Your task to perform on an android device: Open location settings Image 0: 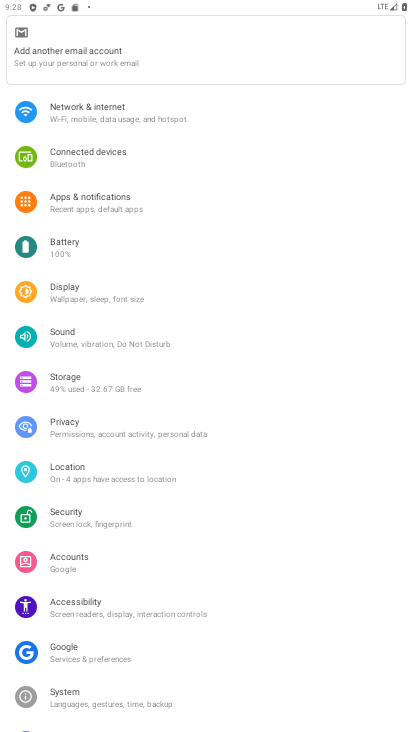
Step 0: press home button
Your task to perform on an android device: Open location settings Image 1: 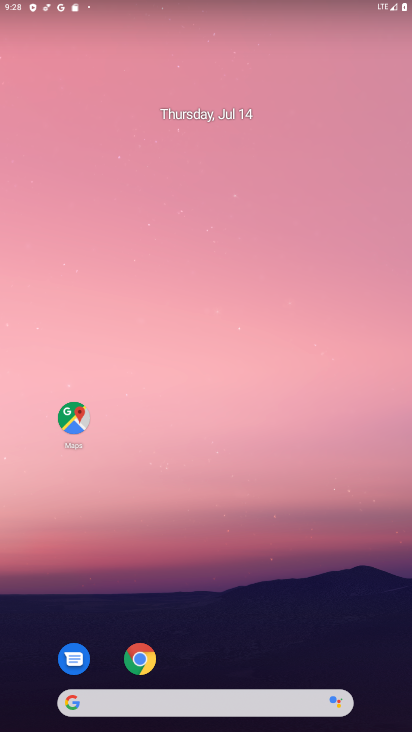
Step 1: drag from (280, 617) to (269, 205)
Your task to perform on an android device: Open location settings Image 2: 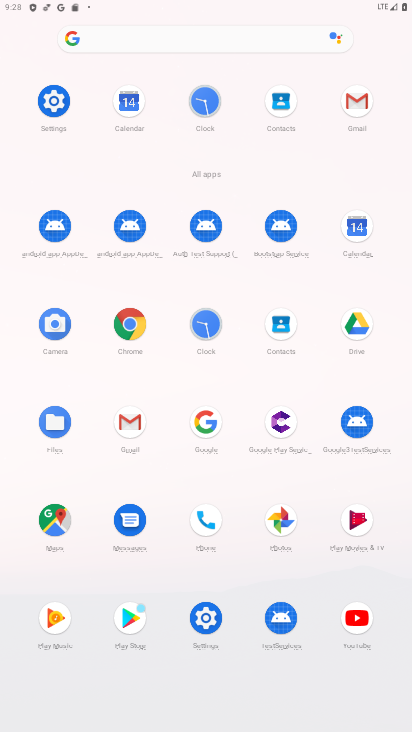
Step 2: click (200, 617)
Your task to perform on an android device: Open location settings Image 3: 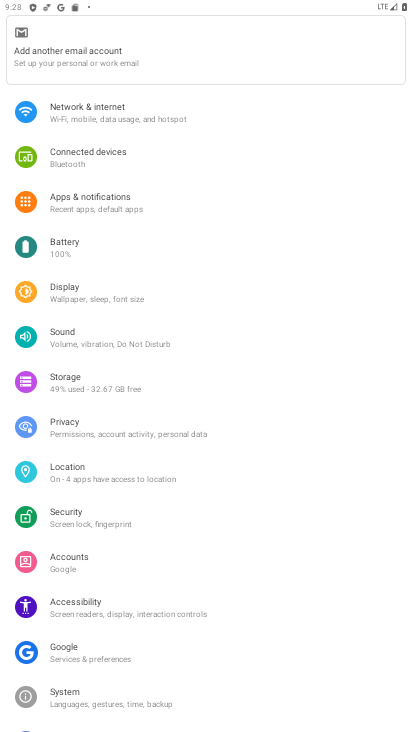
Step 3: click (124, 474)
Your task to perform on an android device: Open location settings Image 4: 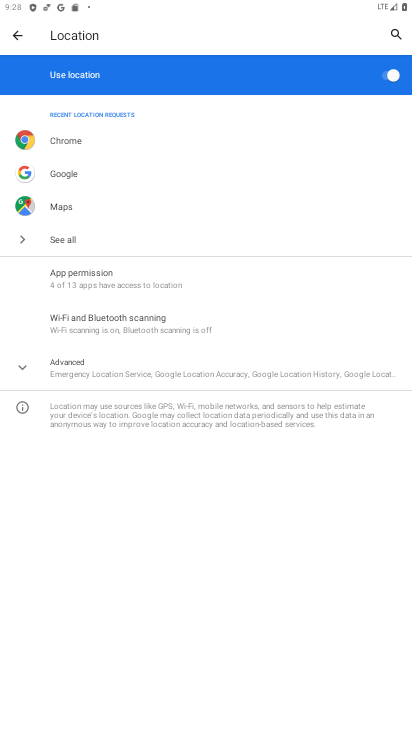
Step 4: task complete